Your task to perform on an android device: toggle notification dots Image 0: 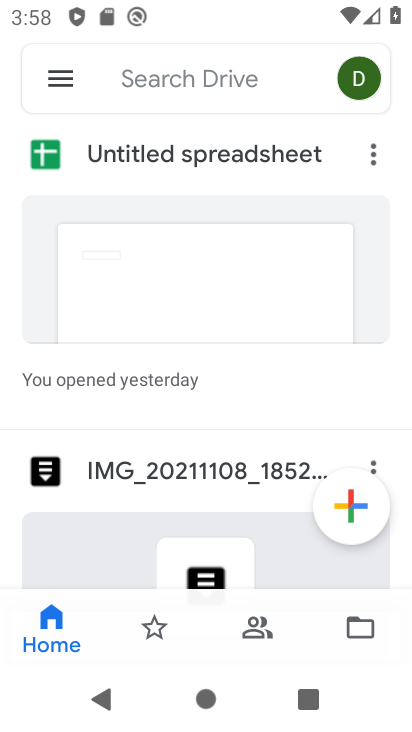
Step 0: press home button
Your task to perform on an android device: toggle notification dots Image 1: 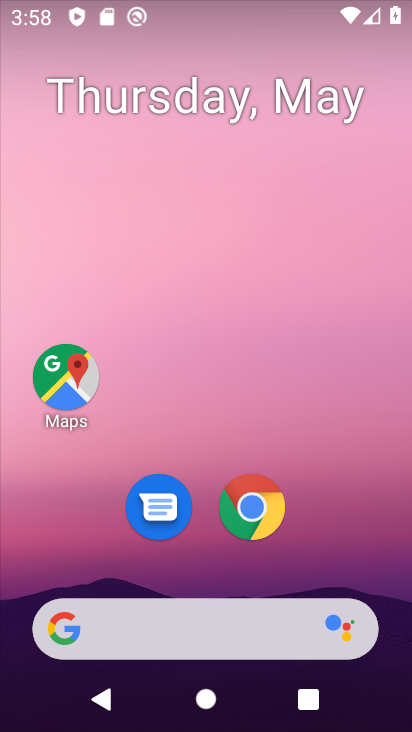
Step 1: drag from (298, 555) to (275, 0)
Your task to perform on an android device: toggle notification dots Image 2: 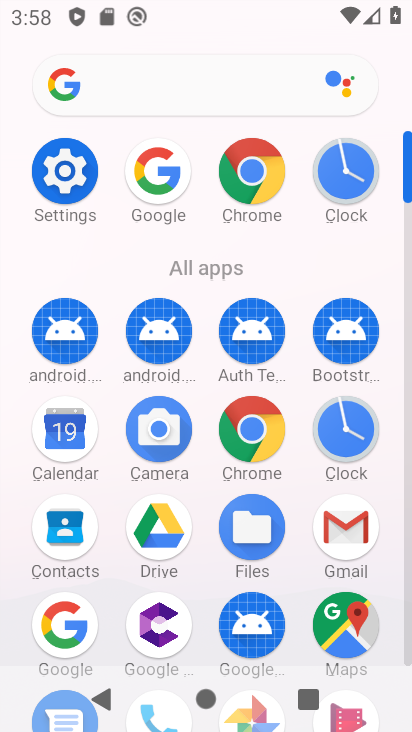
Step 2: click (56, 176)
Your task to perform on an android device: toggle notification dots Image 3: 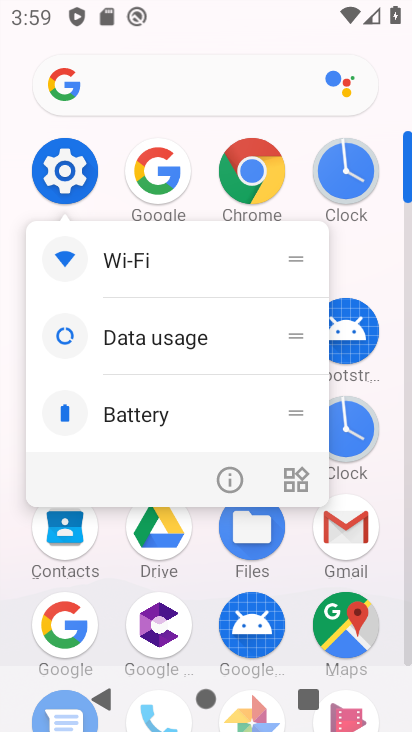
Step 3: click (70, 177)
Your task to perform on an android device: toggle notification dots Image 4: 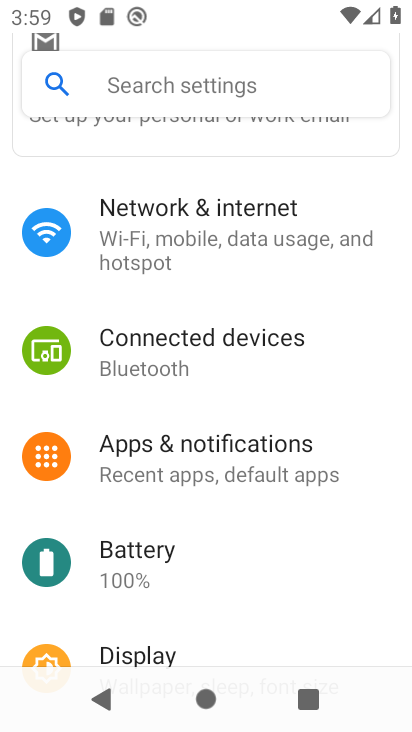
Step 4: click (145, 441)
Your task to perform on an android device: toggle notification dots Image 5: 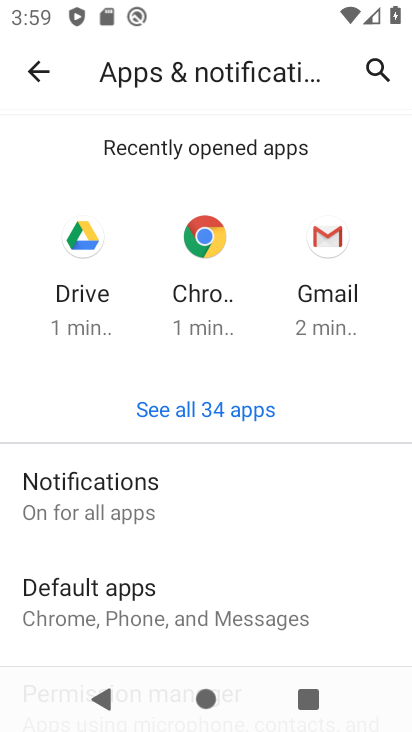
Step 5: click (134, 516)
Your task to perform on an android device: toggle notification dots Image 6: 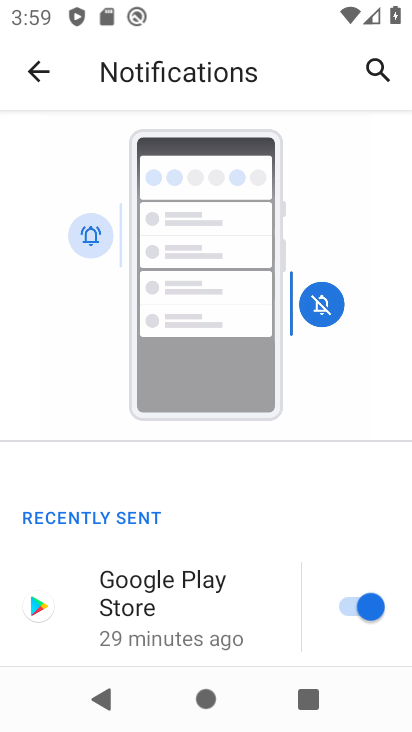
Step 6: drag from (103, 582) to (78, 225)
Your task to perform on an android device: toggle notification dots Image 7: 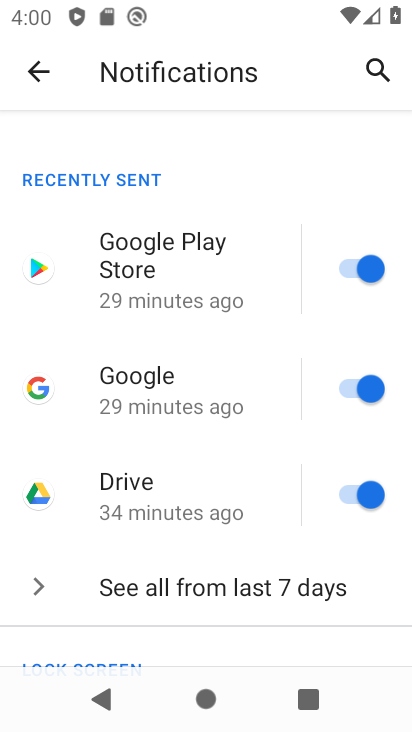
Step 7: drag from (167, 571) to (116, 274)
Your task to perform on an android device: toggle notification dots Image 8: 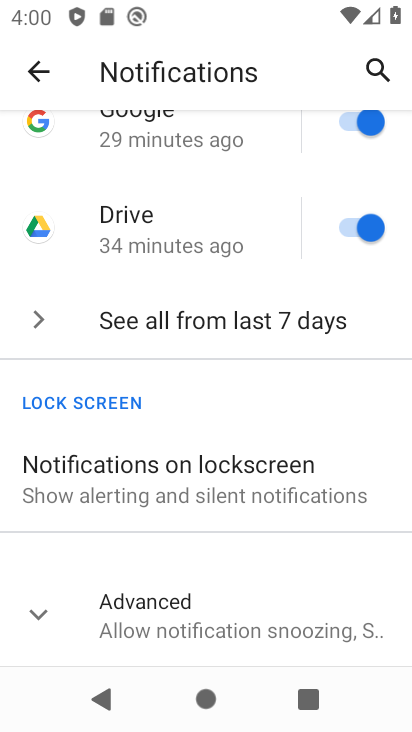
Step 8: click (166, 611)
Your task to perform on an android device: toggle notification dots Image 9: 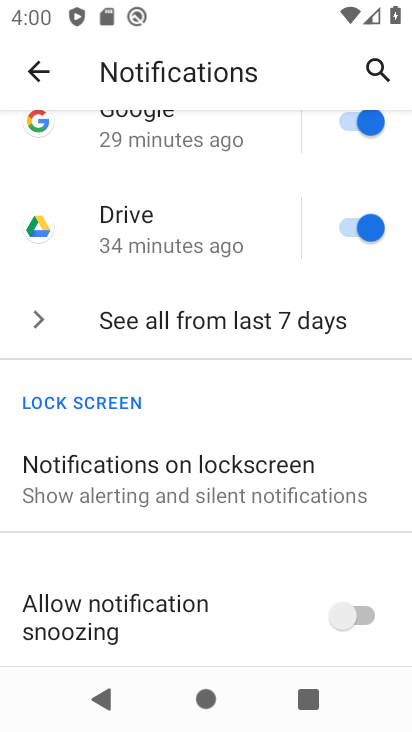
Step 9: drag from (153, 629) to (151, 217)
Your task to perform on an android device: toggle notification dots Image 10: 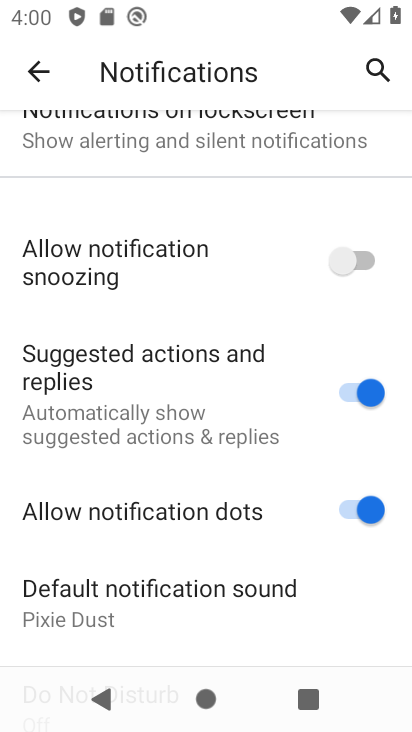
Step 10: click (359, 506)
Your task to perform on an android device: toggle notification dots Image 11: 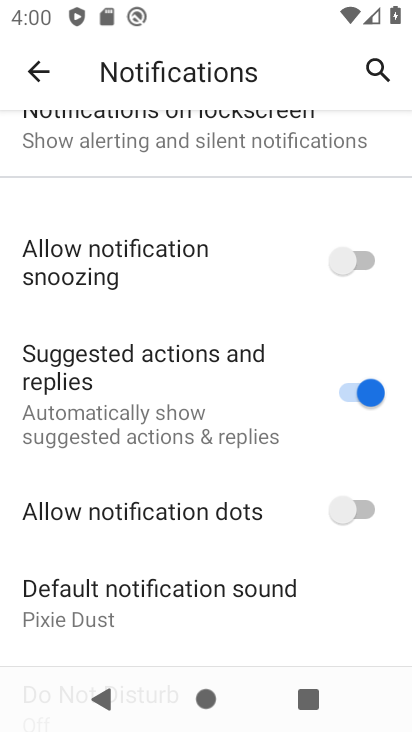
Step 11: task complete